Your task to perform on an android device: change alarm snooze length Image 0: 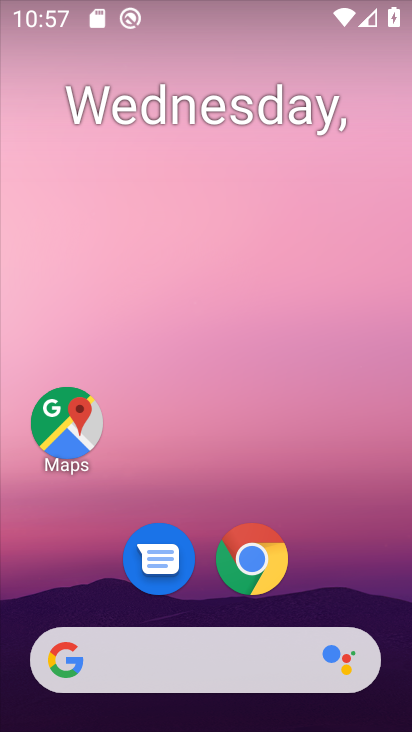
Step 0: press home button
Your task to perform on an android device: change alarm snooze length Image 1: 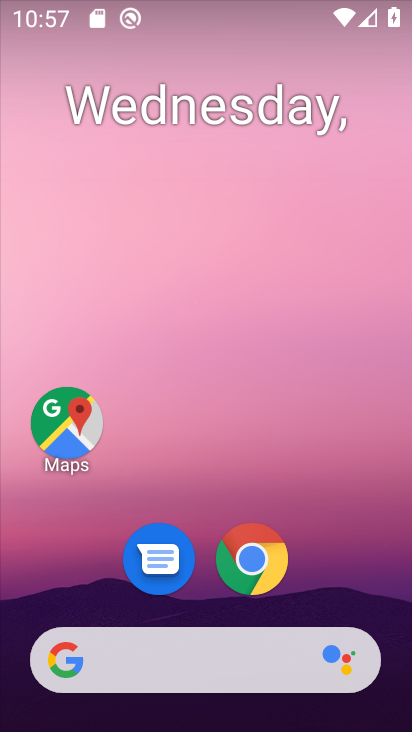
Step 1: drag from (214, 693) to (245, 104)
Your task to perform on an android device: change alarm snooze length Image 2: 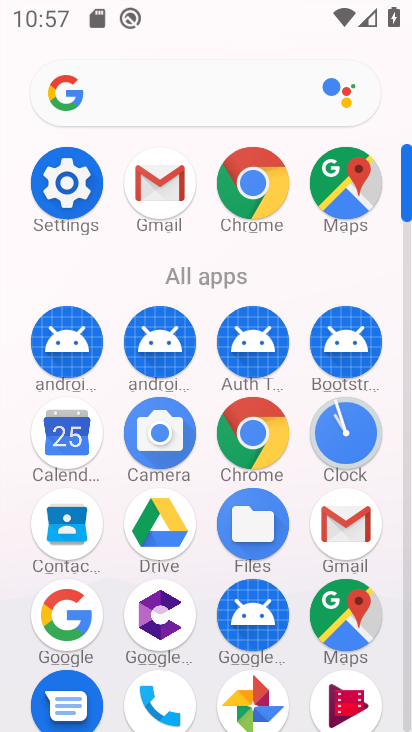
Step 2: click (335, 445)
Your task to perform on an android device: change alarm snooze length Image 3: 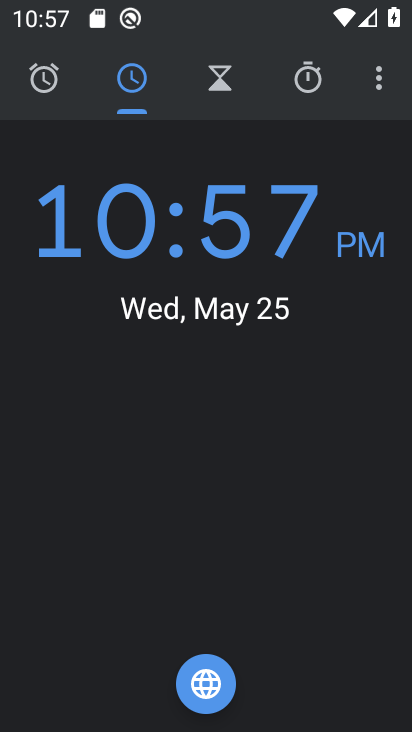
Step 3: click (379, 86)
Your task to perform on an android device: change alarm snooze length Image 4: 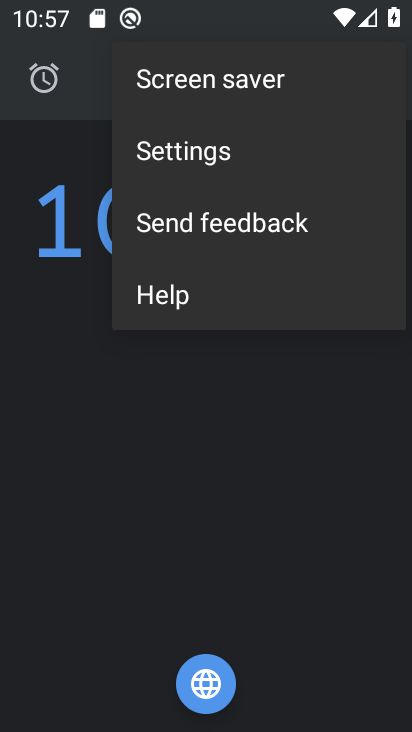
Step 4: click (201, 163)
Your task to perform on an android device: change alarm snooze length Image 5: 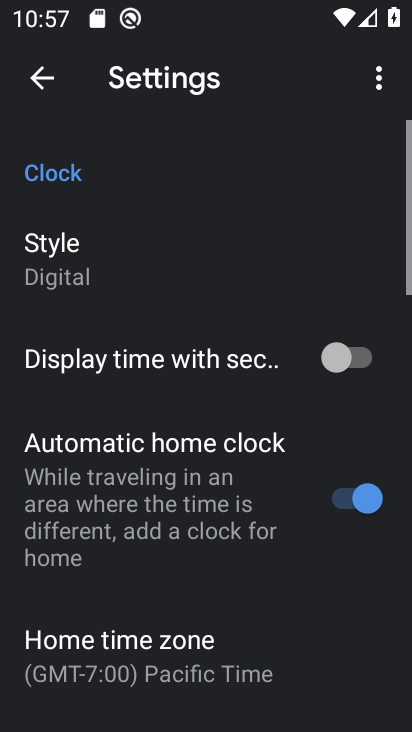
Step 5: drag from (176, 585) to (200, 186)
Your task to perform on an android device: change alarm snooze length Image 6: 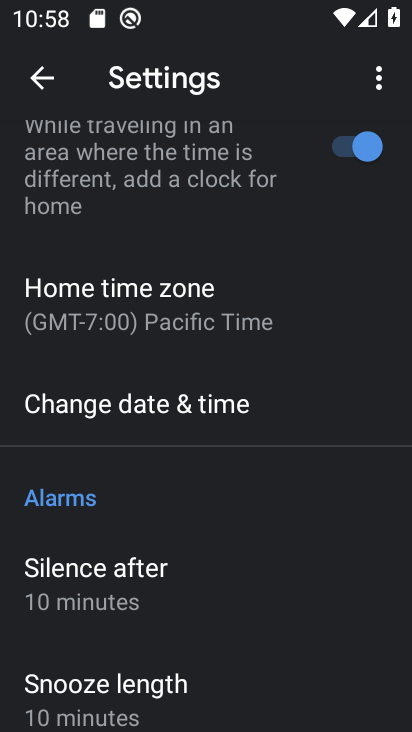
Step 6: click (161, 677)
Your task to perform on an android device: change alarm snooze length Image 7: 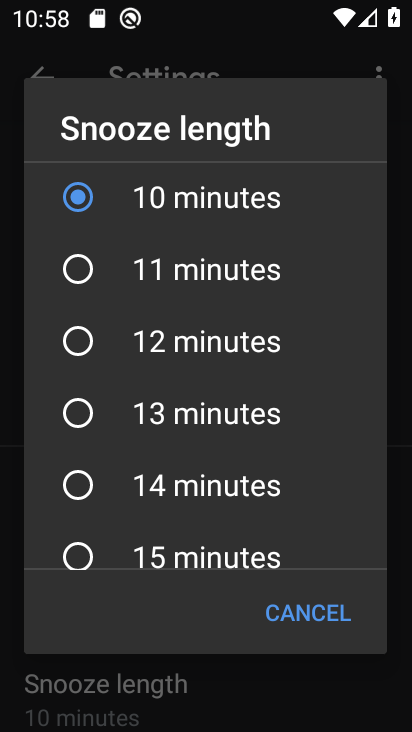
Step 7: click (177, 521)
Your task to perform on an android device: change alarm snooze length Image 8: 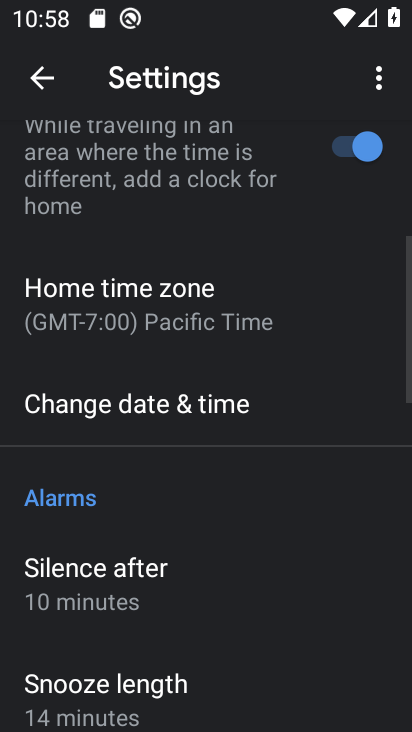
Step 8: task complete